Your task to perform on an android device: find which apps use the phone's location Image 0: 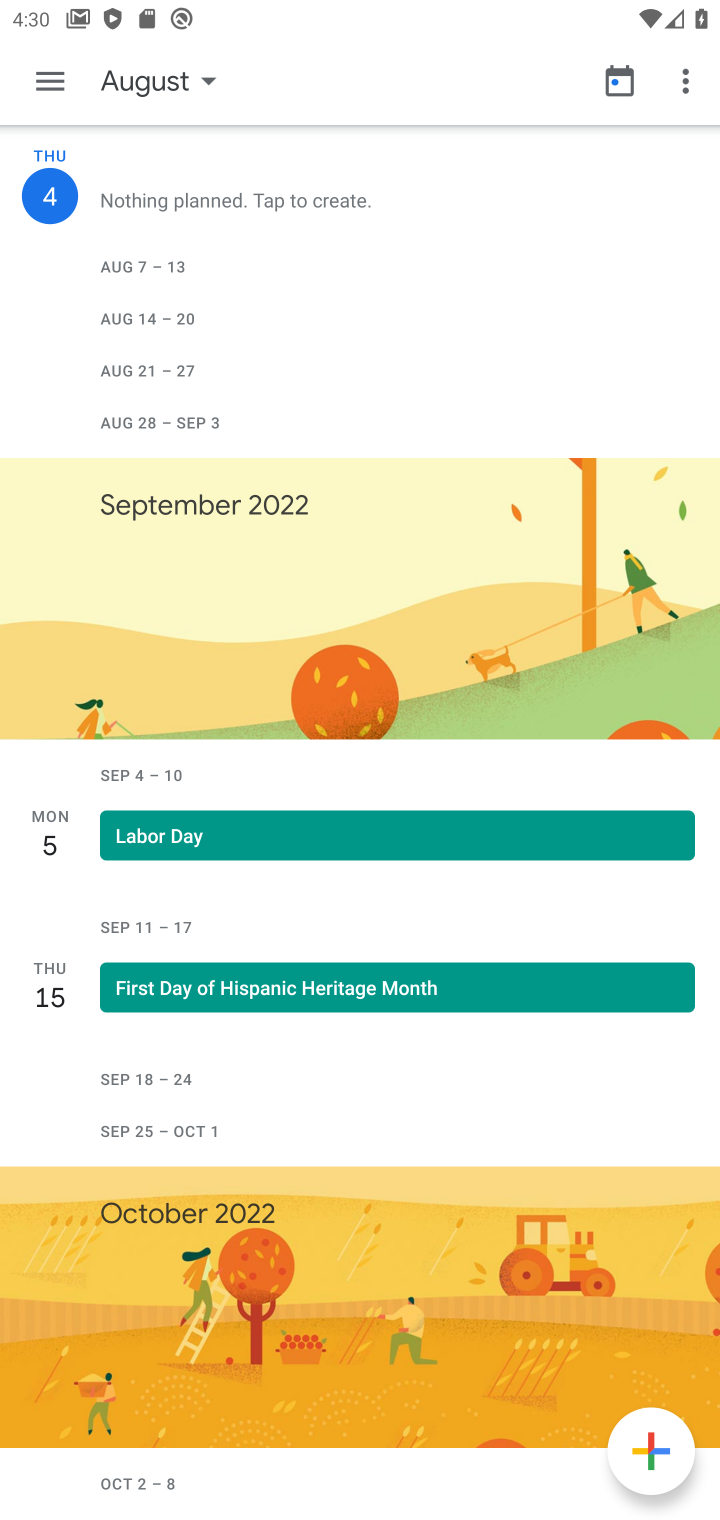
Step 0: press home button
Your task to perform on an android device: find which apps use the phone's location Image 1: 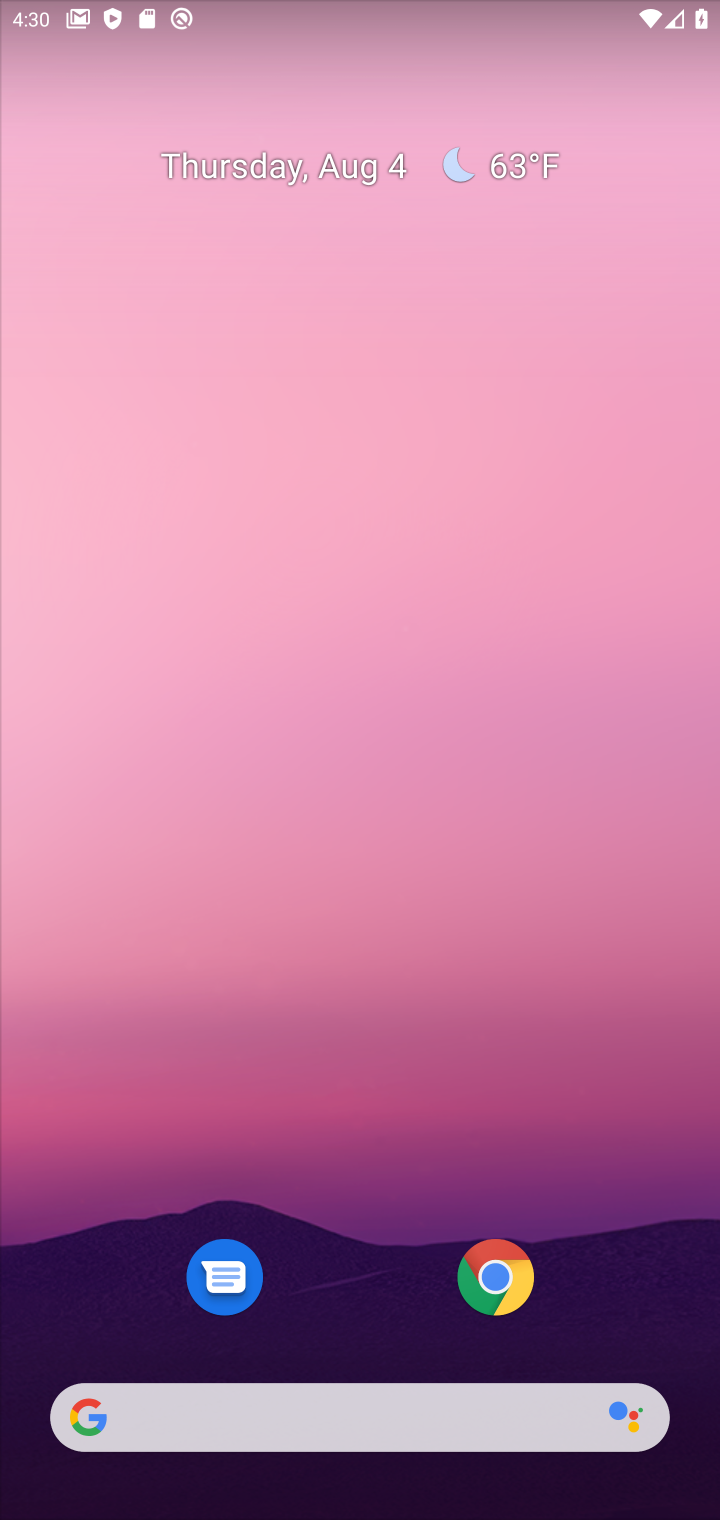
Step 1: drag from (484, 926) to (450, 130)
Your task to perform on an android device: find which apps use the phone's location Image 2: 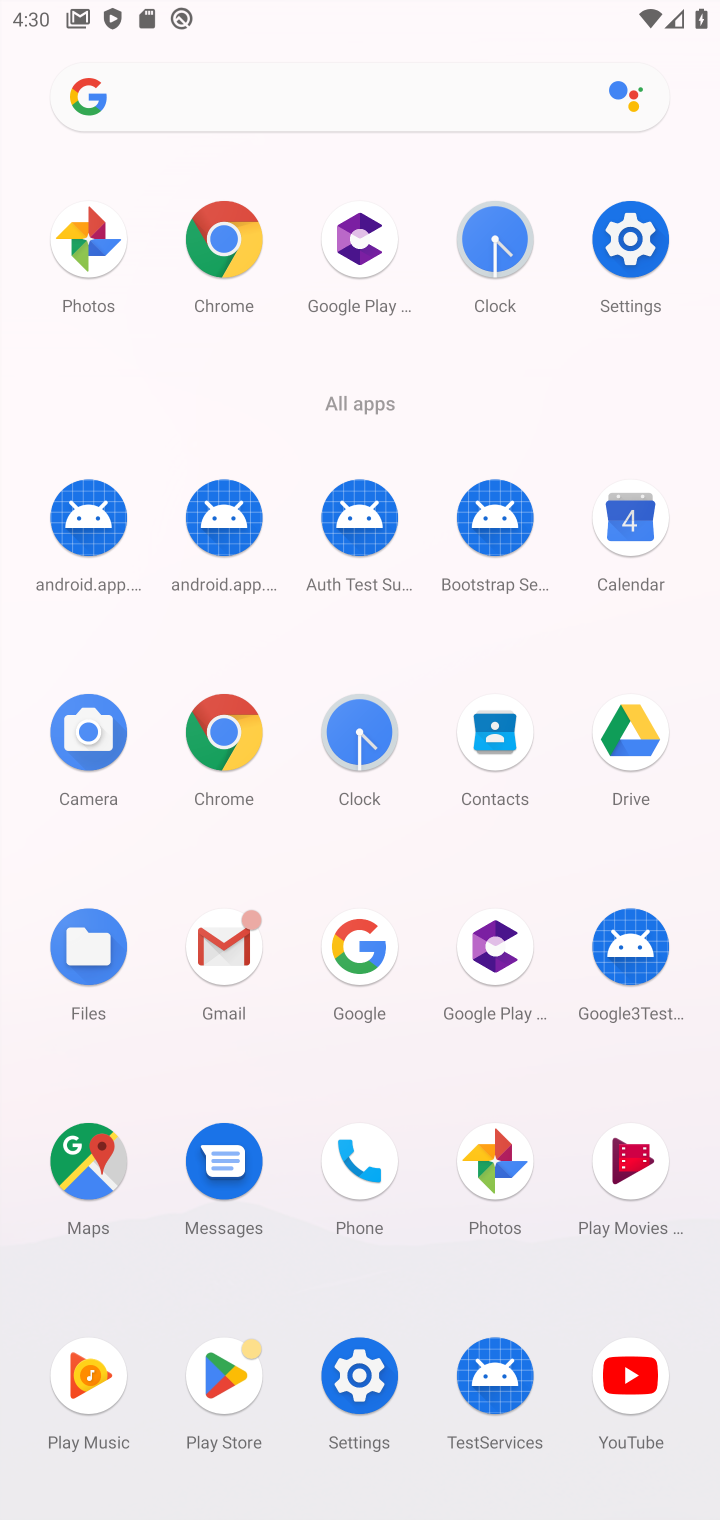
Step 2: click (636, 252)
Your task to perform on an android device: find which apps use the phone's location Image 3: 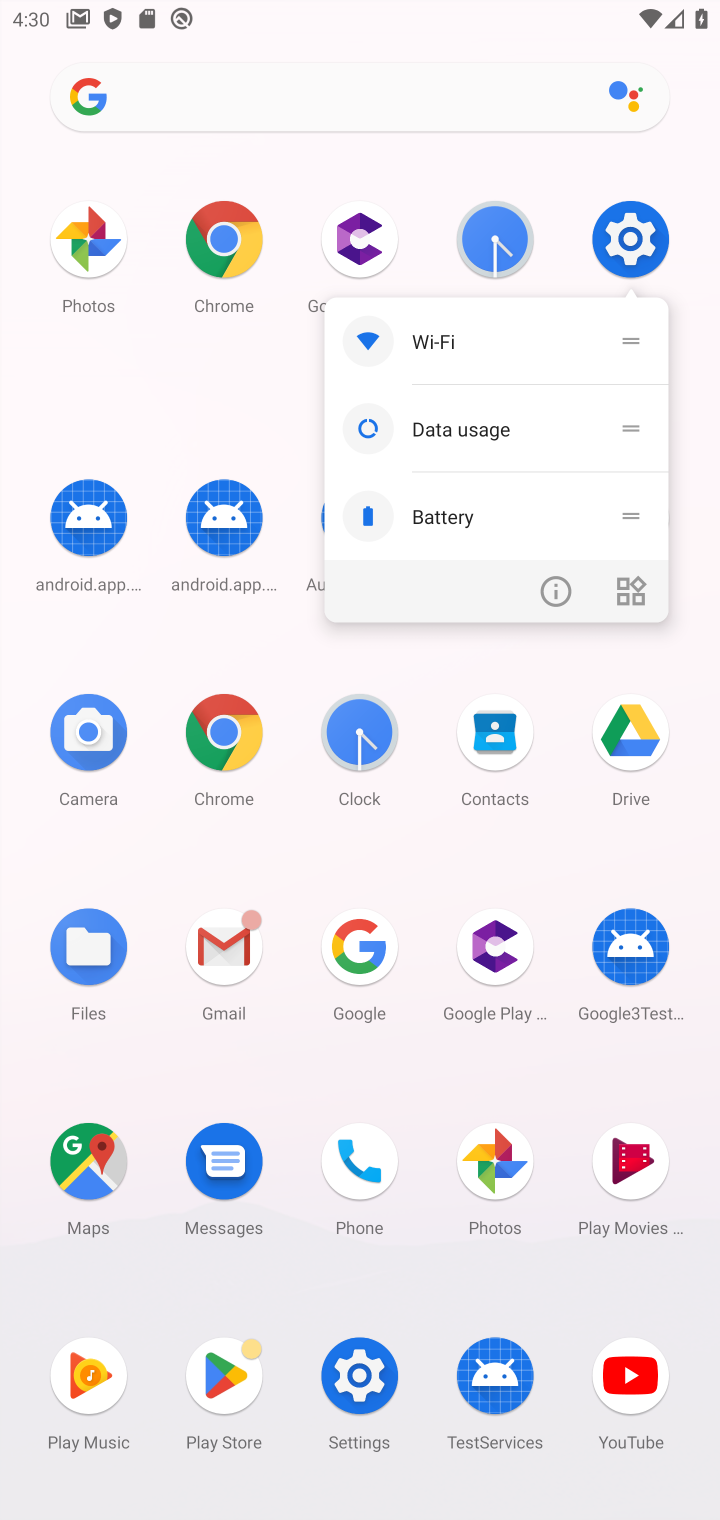
Step 3: click (636, 252)
Your task to perform on an android device: find which apps use the phone's location Image 4: 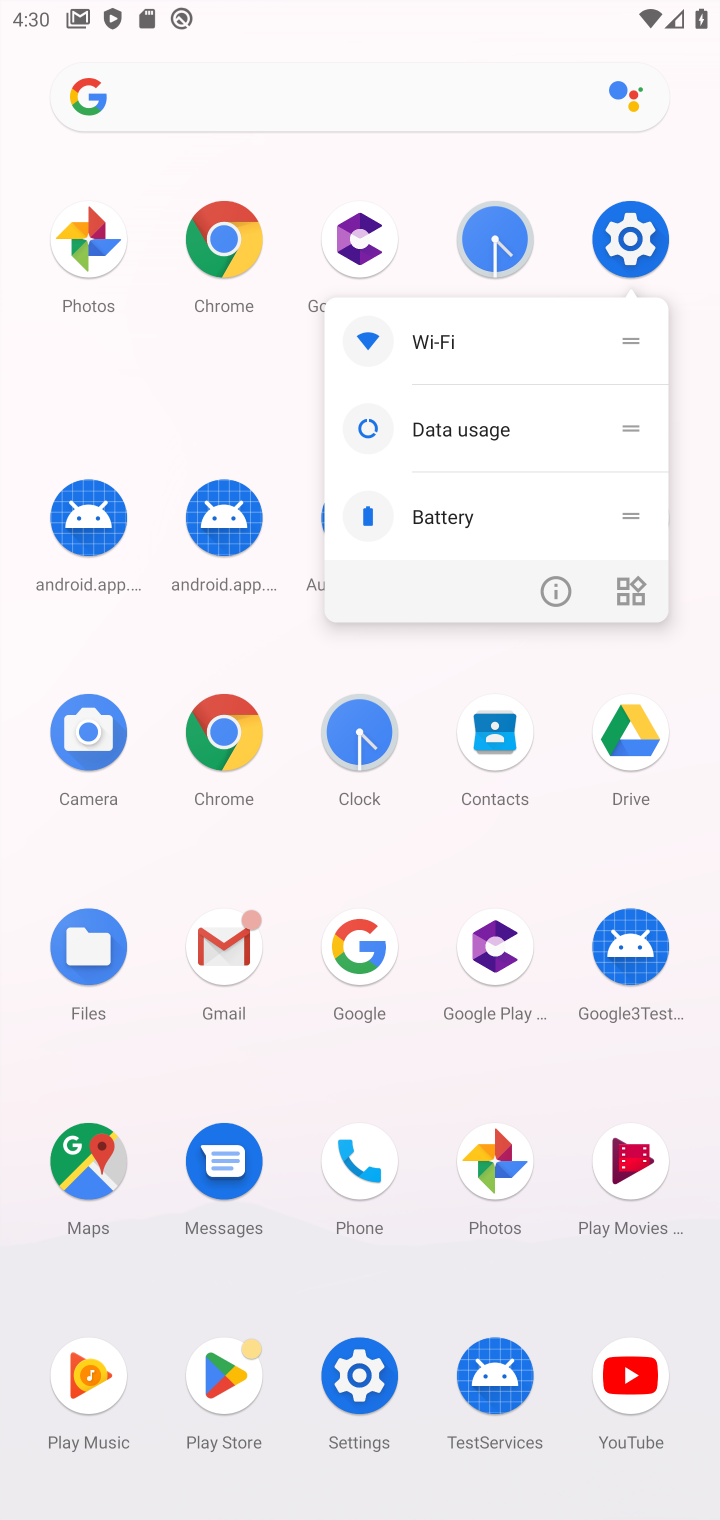
Step 4: click (636, 244)
Your task to perform on an android device: find which apps use the phone's location Image 5: 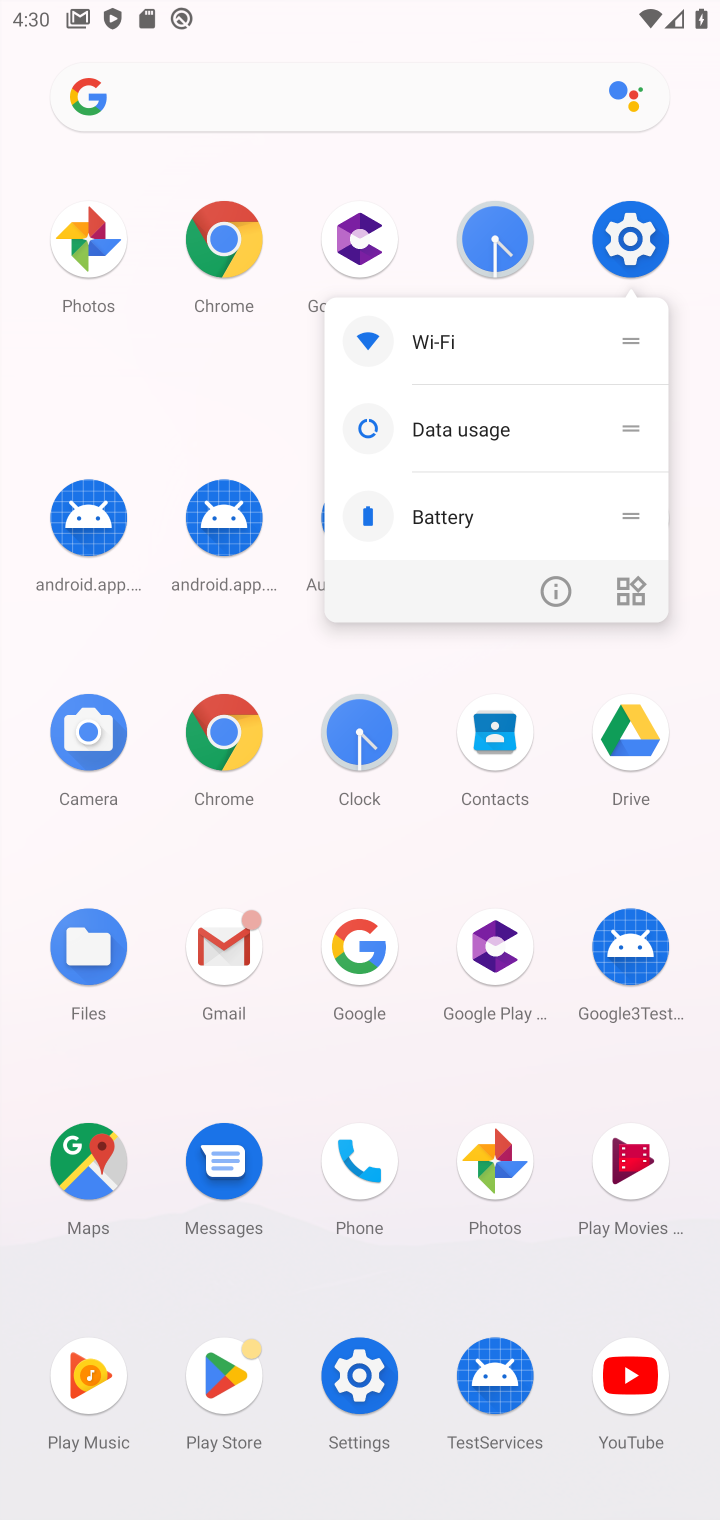
Step 5: click (636, 241)
Your task to perform on an android device: find which apps use the phone's location Image 6: 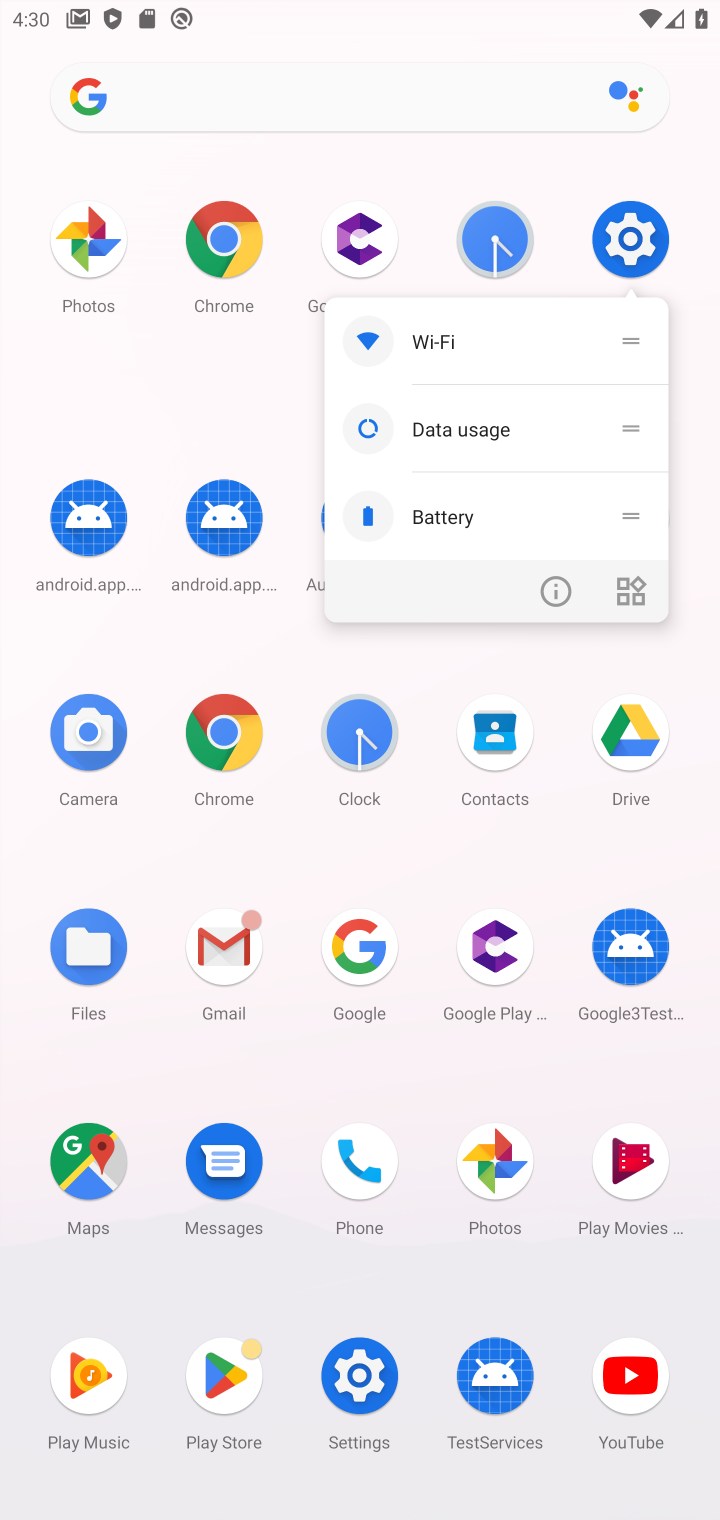
Step 6: click (636, 243)
Your task to perform on an android device: find which apps use the phone's location Image 7: 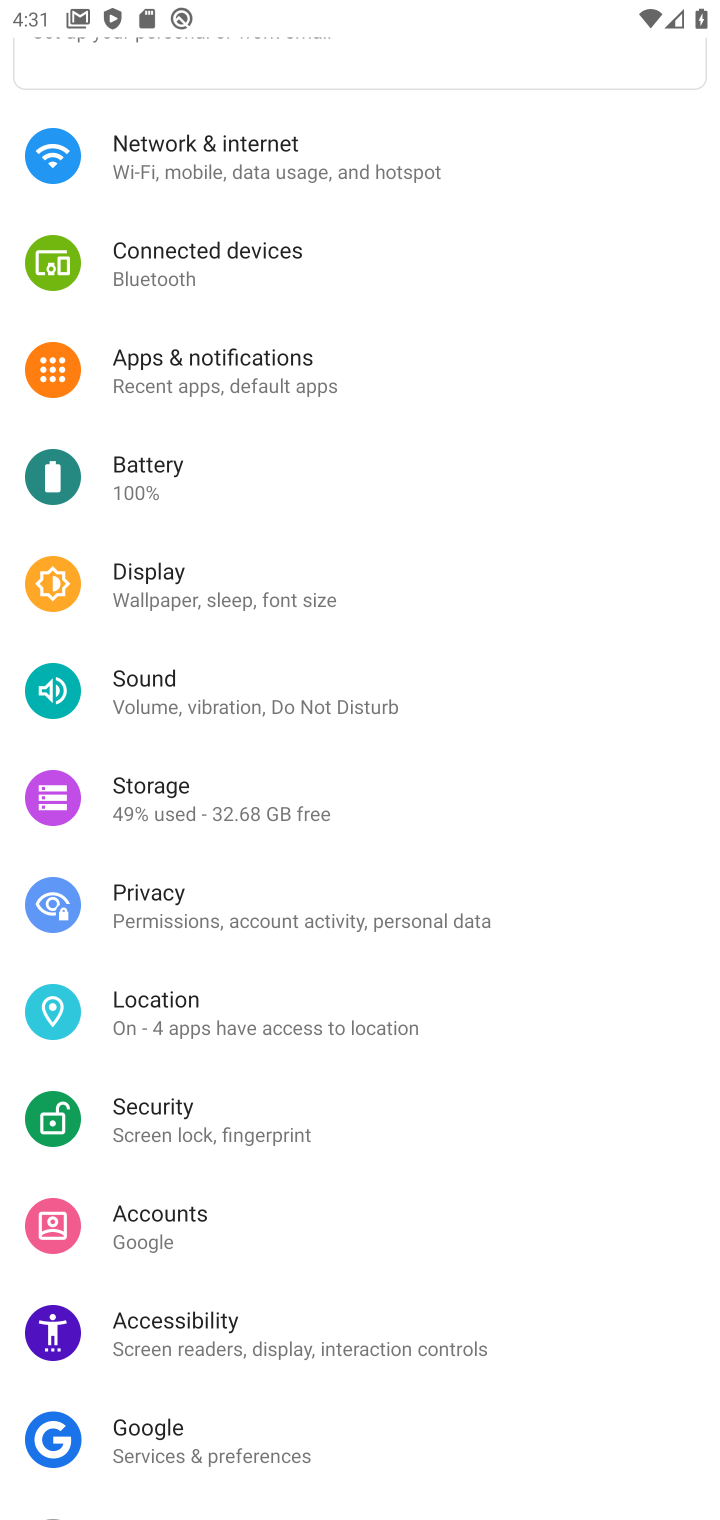
Step 7: click (255, 1002)
Your task to perform on an android device: find which apps use the phone's location Image 8: 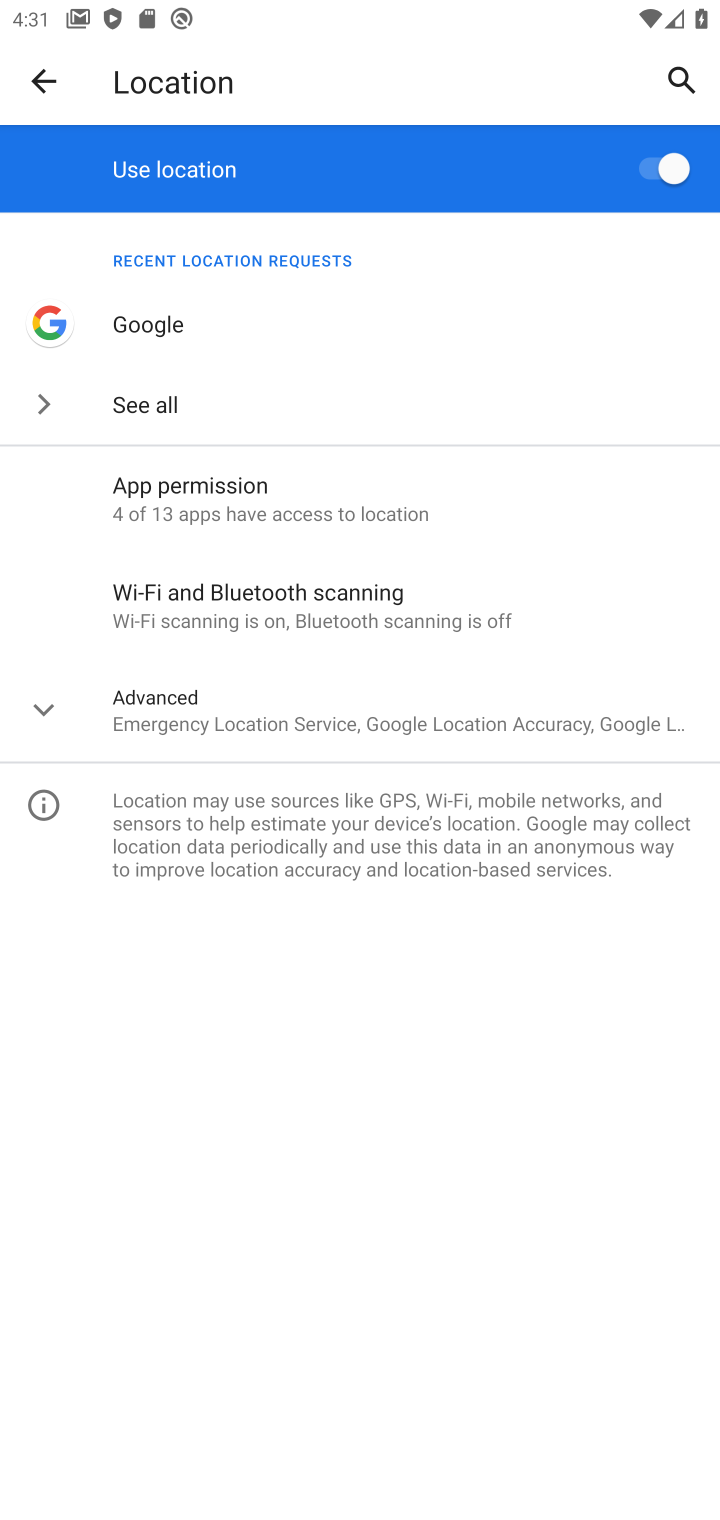
Step 8: click (230, 516)
Your task to perform on an android device: find which apps use the phone's location Image 9: 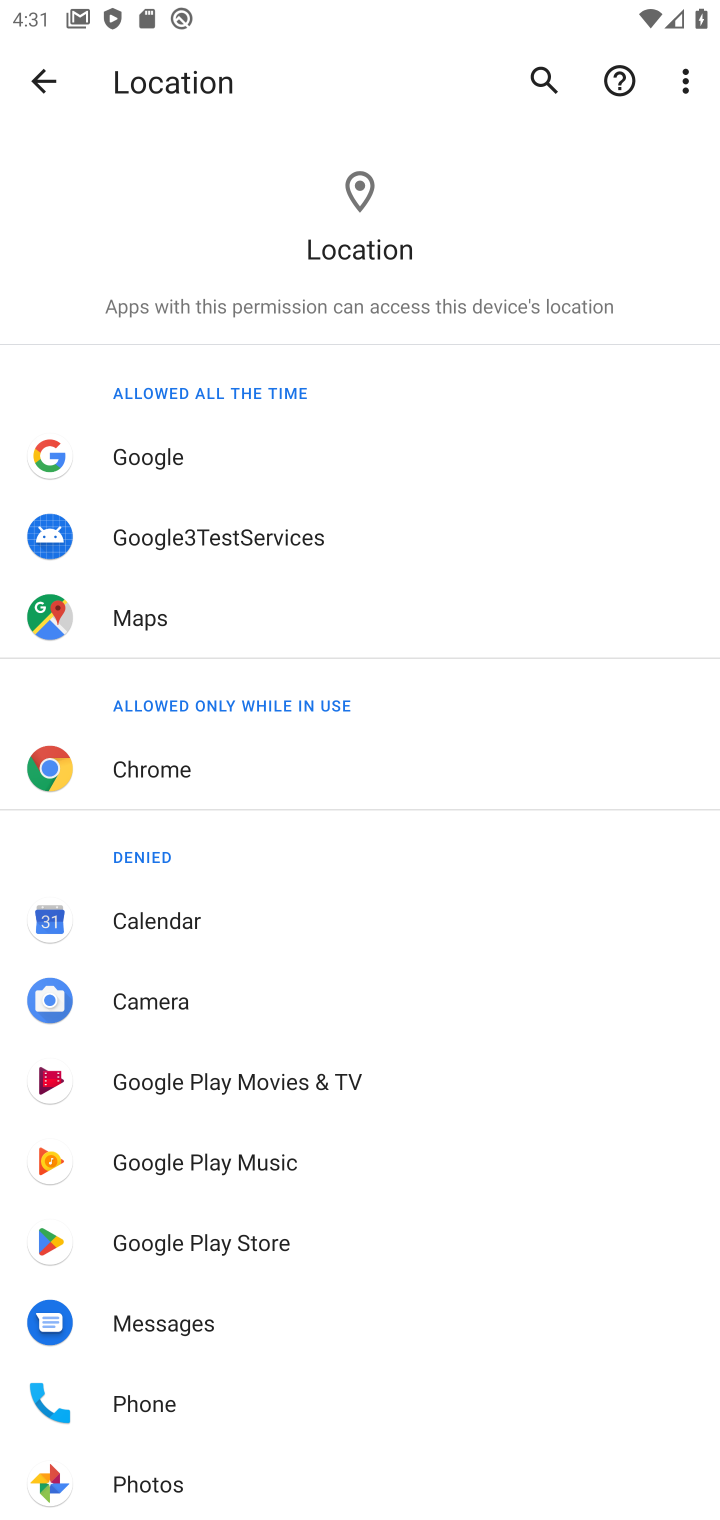
Step 9: task complete